Your task to perform on an android device: Show me popular videos on Youtube Image 0: 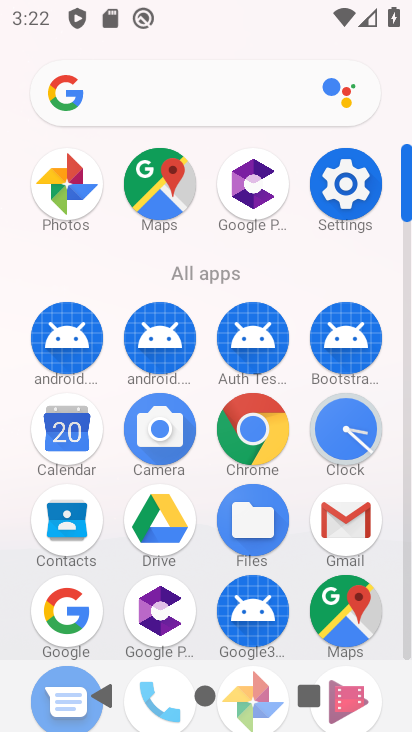
Step 0: drag from (214, 421) to (249, 190)
Your task to perform on an android device: Show me popular videos on Youtube Image 1: 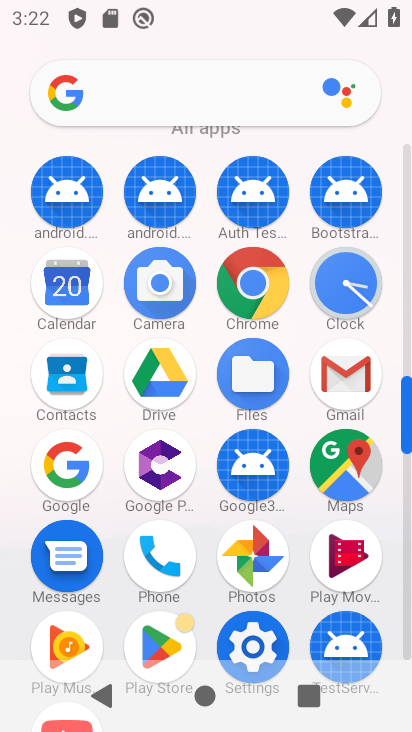
Step 1: drag from (204, 455) to (203, 153)
Your task to perform on an android device: Show me popular videos on Youtube Image 2: 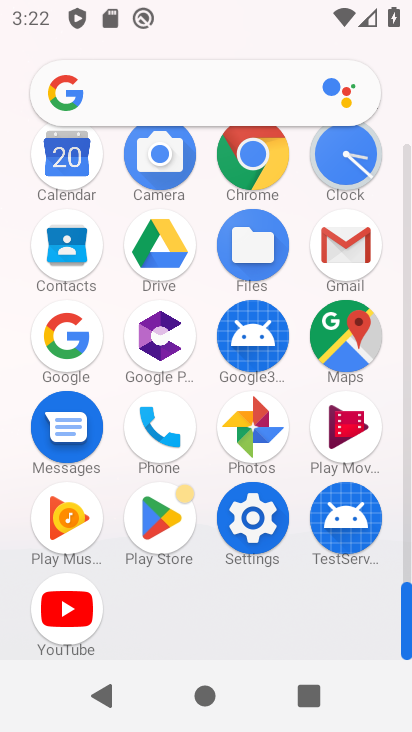
Step 2: click (77, 621)
Your task to perform on an android device: Show me popular videos on Youtube Image 3: 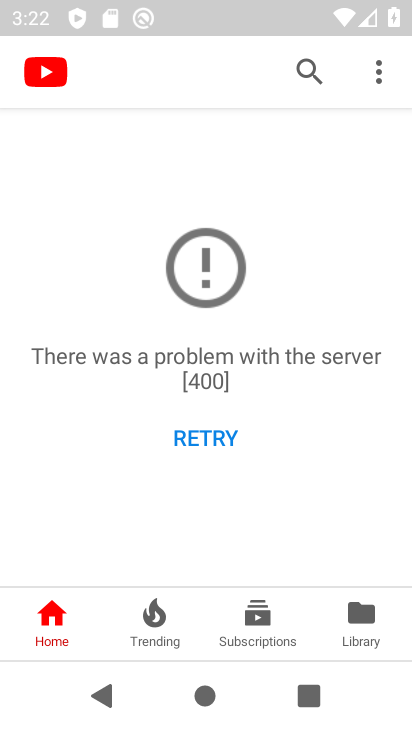
Step 3: click (43, 630)
Your task to perform on an android device: Show me popular videos on Youtube Image 4: 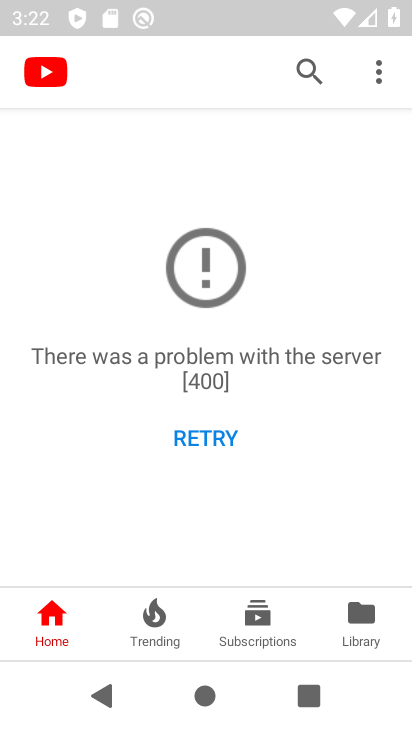
Step 4: click (198, 429)
Your task to perform on an android device: Show me popular videos on Youtube Image 5: 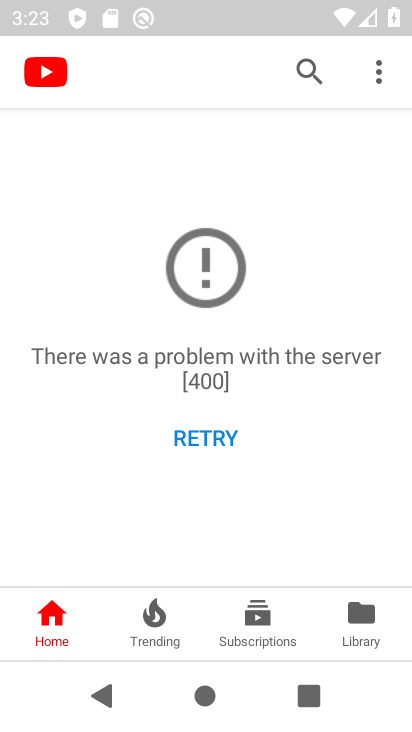
Step 5: task complete